Your task to perform on an android device: open device folders in google photos Image 0: 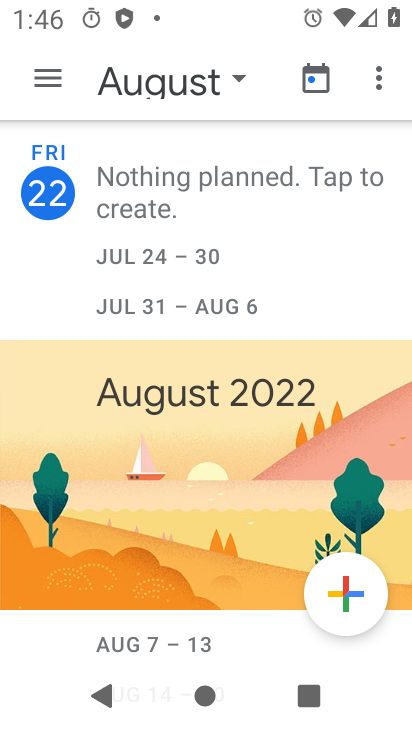
Step 0: press home button
Your task to perform on an android device: open device folders in google photos Image 1: 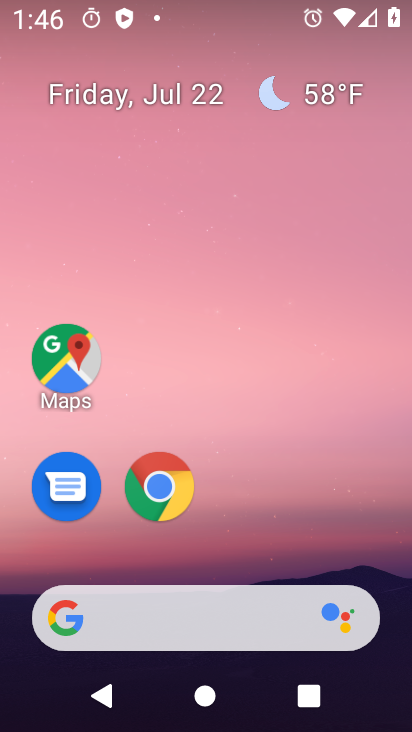
Step 1: drag from (370, 534) to (354, 176)
Your task to perform on an android device: open device folders in google photos Image 2: 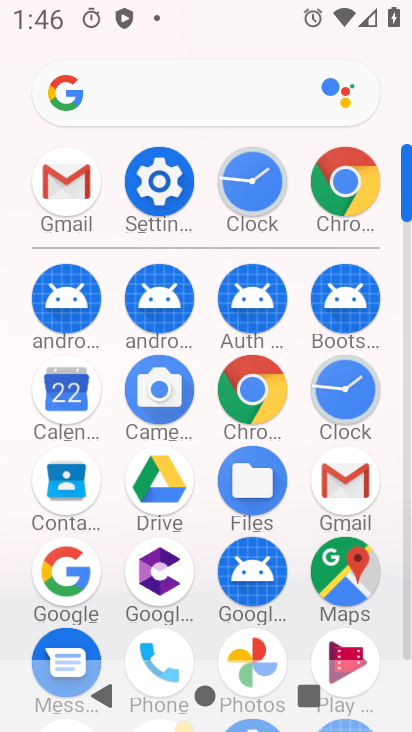
Step 2: drag from (406, 542) to (392, 442)
Your task to perform on an android device: open device folders in google photos Image 3: 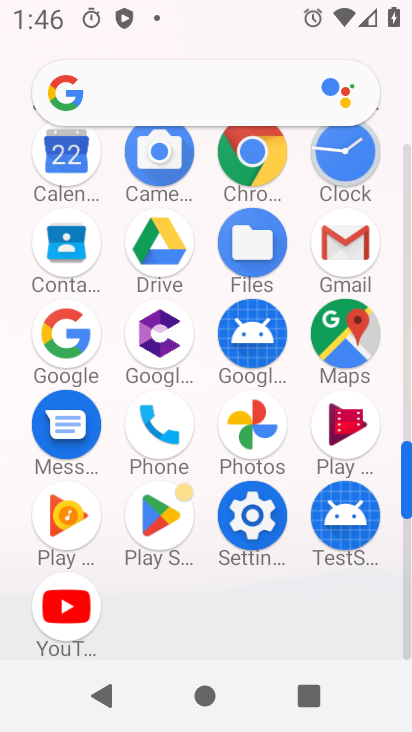
Step 3: click (259, 414)
Your task to perform on an android device: open device folders in google photos Image 4: 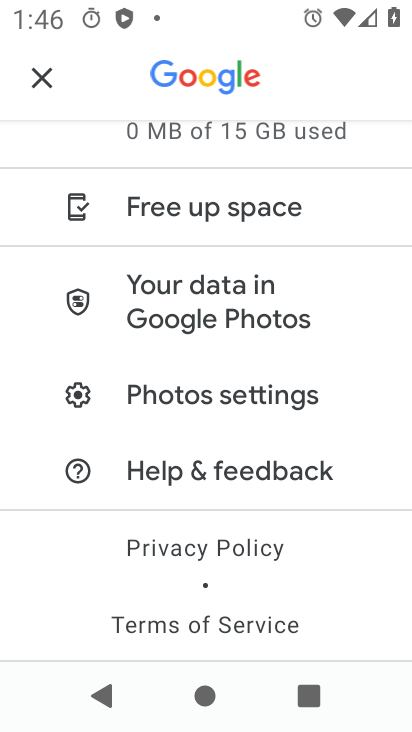
Step 4: task complete